Your task to perform on an android device: change your default location settings in chrome Image 0: 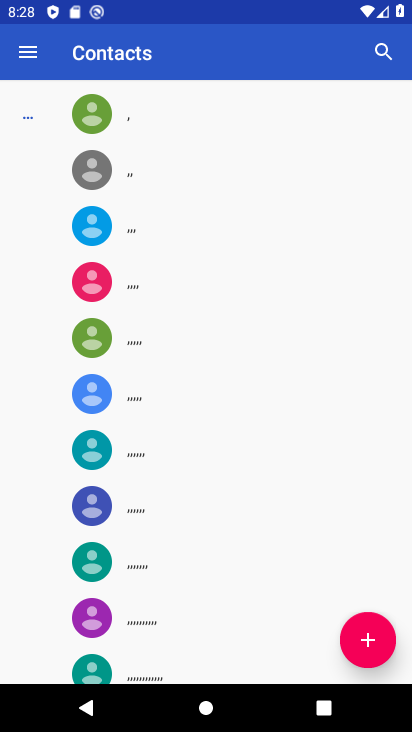
Step 0: press home button
Your task to perform on an android device: change your default location settings in chrome Image 1: 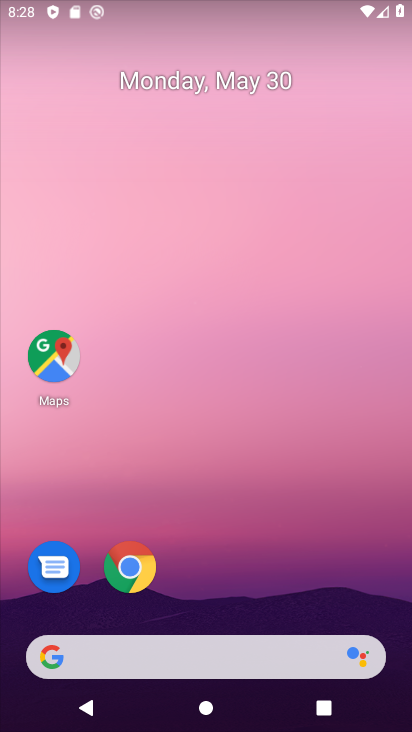
Step 1: click (117, 570)
Your task to perform on an android device: change your default location settings in chrome Image 2: 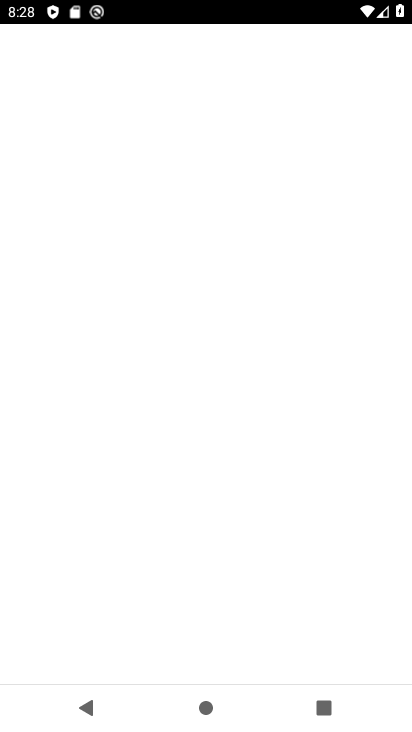
Step 2: click (117, 570)
Your task to perform on an android device: change your default location settings in chrome Image 3: 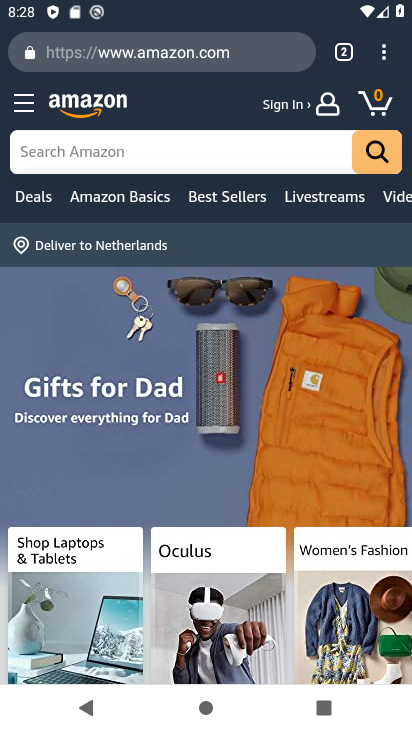
Step 3: click (379, 58)
Your task to perform on an android device: change your default location settings in chrome Image 4: 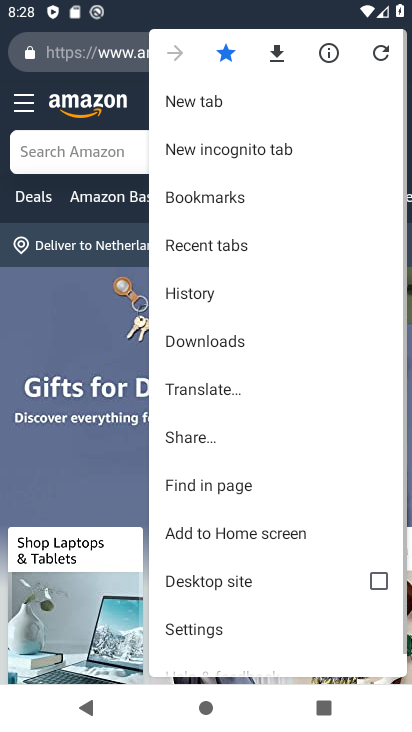
Step 4: click (201, 634)
Your task to perform on an android device: change your default location settings in chrome Image 5: 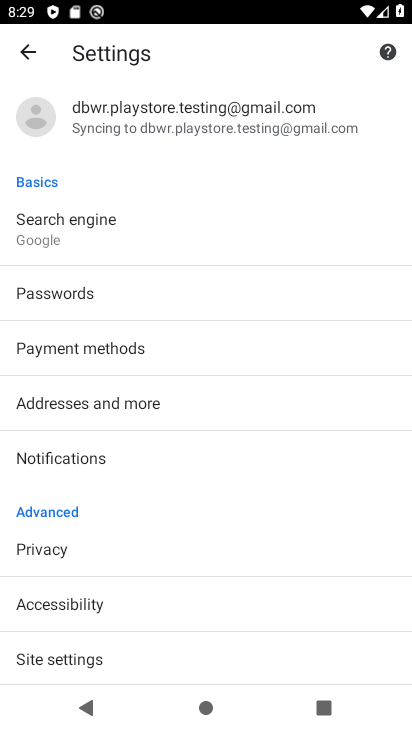
Step 5: drag from (160, 587) to (226, 178)
Your task to perform on an android device: change your default location settings in chrome Image 6: 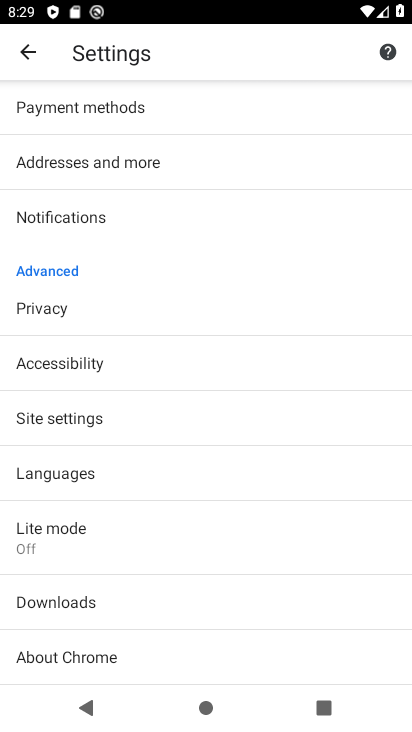
Step 6: click (123, 423)
Your task to perform on an android device: change your default location settings in chrome Image 7: 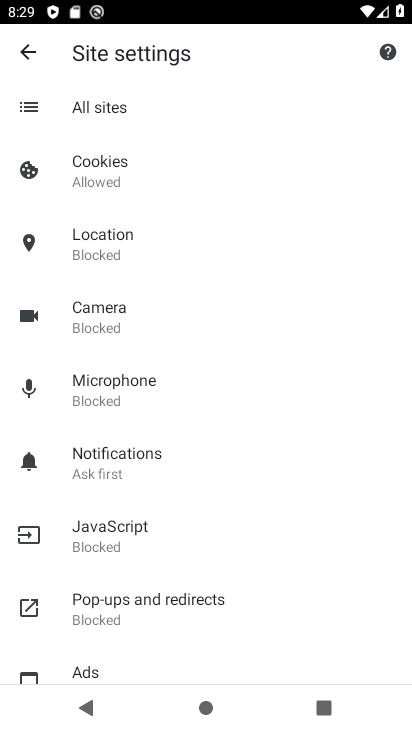
Step 7: click (153, 229)
Your task to perform on an android device: change your default location settings in chrome Image 8: 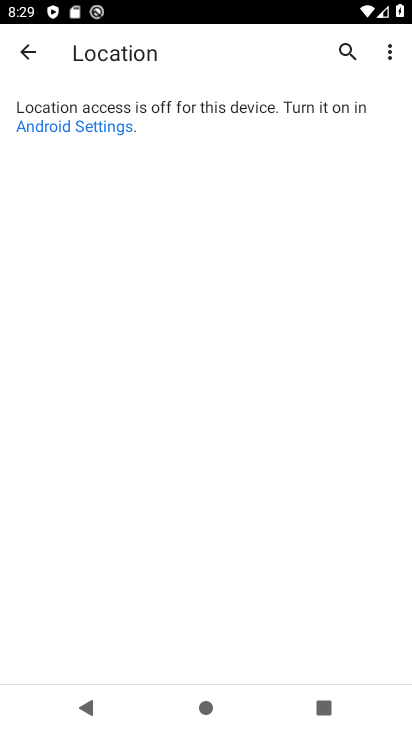
Step 8: task complete